Your task to perform on an android device: open chrome privacy settings Image 0: 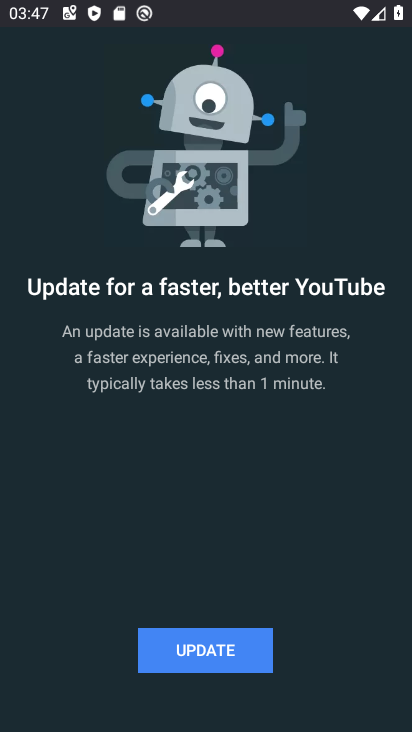
Step 0: press home button
Your task to perform on an android device: open chrome privacy settings Image 1: 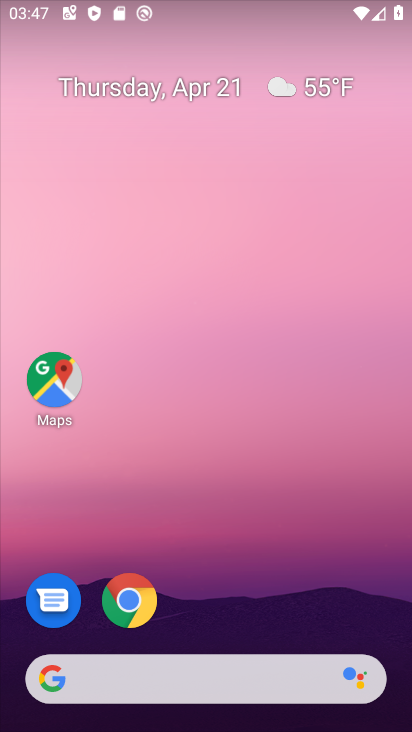
Step 1: click (150, 606)
Your task to perform on an android device: open chrome privacy settings Image 2: 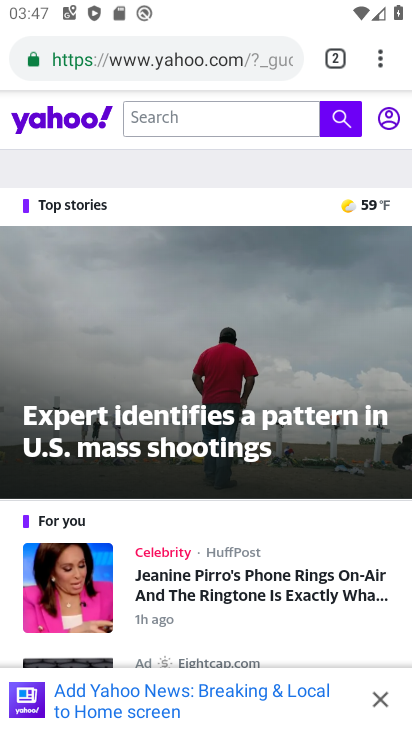
Step 2: click (383, 65)
Your task to perform on an android device: open chrome privacy settings Image 3: 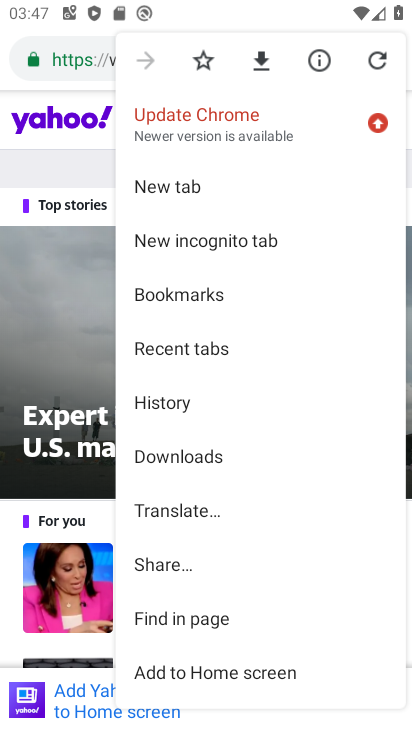
Step 3: drag from (269, 597) to (257, 299)
Your task to perform on an android device: open chrome privacy settings Image 4: 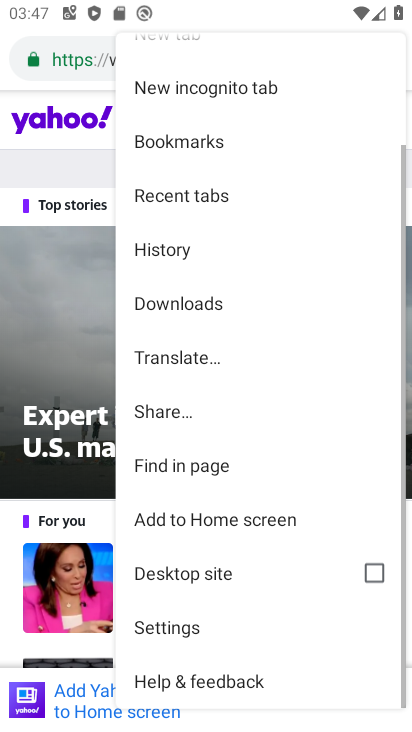
Step 4: click (241, 612)
Your task to perform on an android device: open chrome privacy settings Image 5: 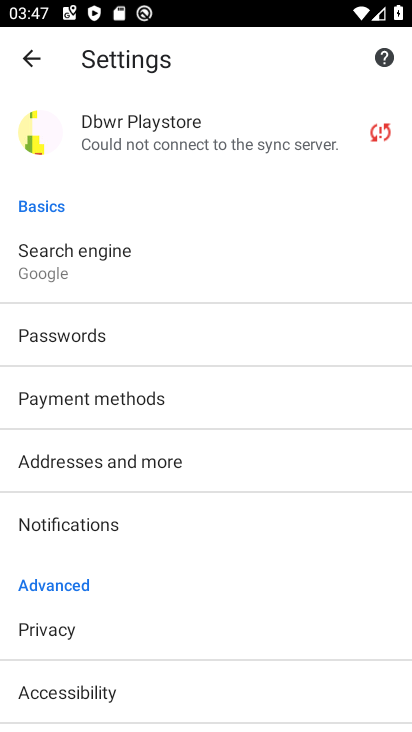
Step 5: click (142, 620)
Your task to perform on an android device: open chrome privacy settings Image 6: 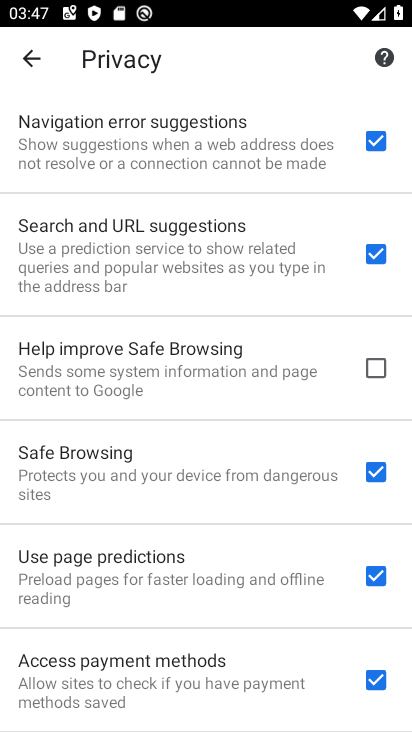
Step 6: task complete